Your task to perform on an android device: all mails in gmail Image 0: 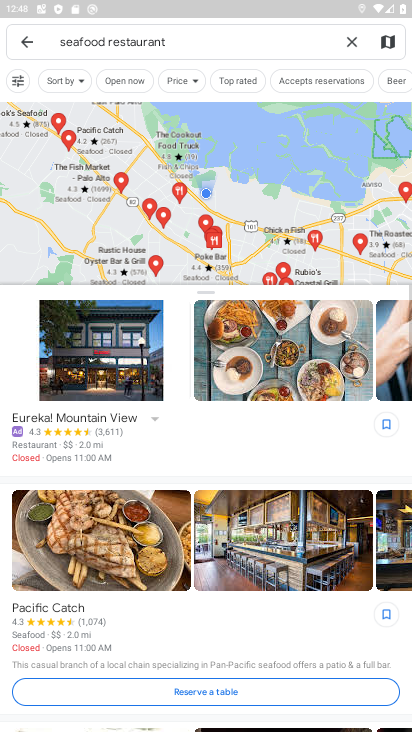
Step 0: press home button
Your task to perform on an android device: all mails in gmail Image 1: 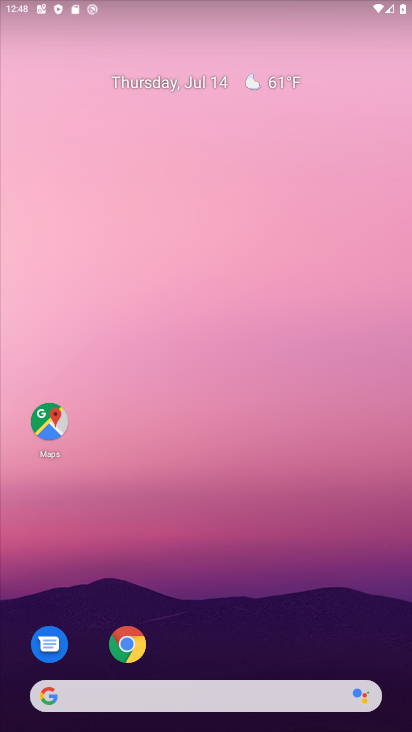
Step 1: drag from (309, 599) to (353, 14)
Your task to perform on an android device: all mails in gmail Image 2: 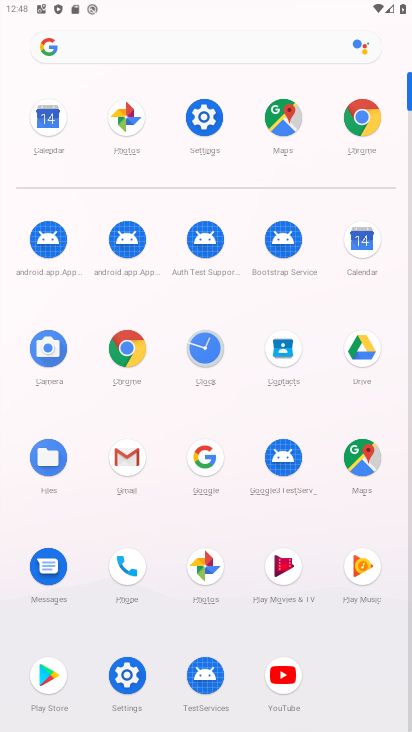
Step 2: click (131, 450)
Your task to perform on an android device: all mails in gmail Image 3: 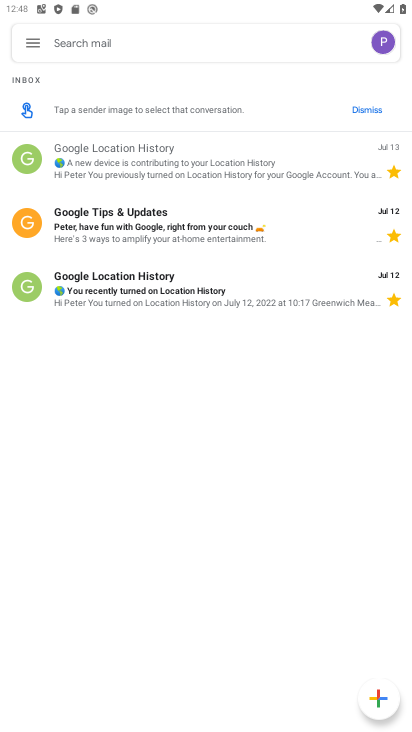
Step 3: click (30, 29)
Your task to perform on an android device: all mails in gmail Image 4: 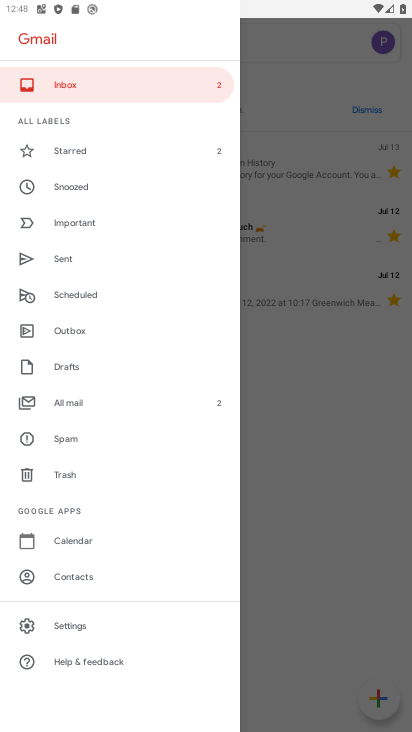
Step 4: click (82, 399)
Your task to perform on an android device: all mails in gmail Image 5: 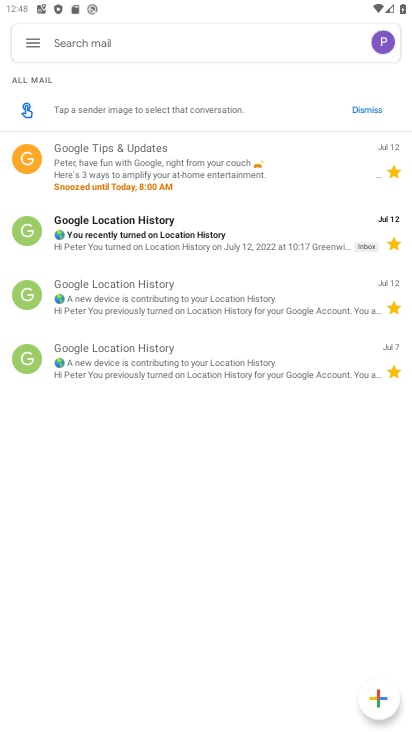
Step 5: task complete